Your task to perform on an android device: open a new tab in the chrome app Image 0: 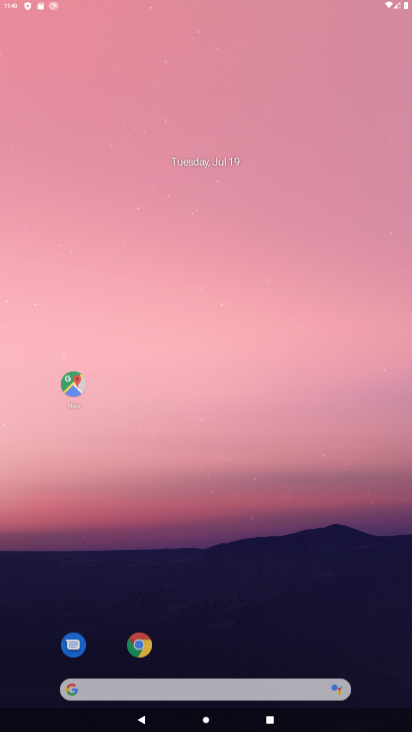
Step 0: press home button
Your task to perform on an android device: open a new tab in the chrome app Image 1: 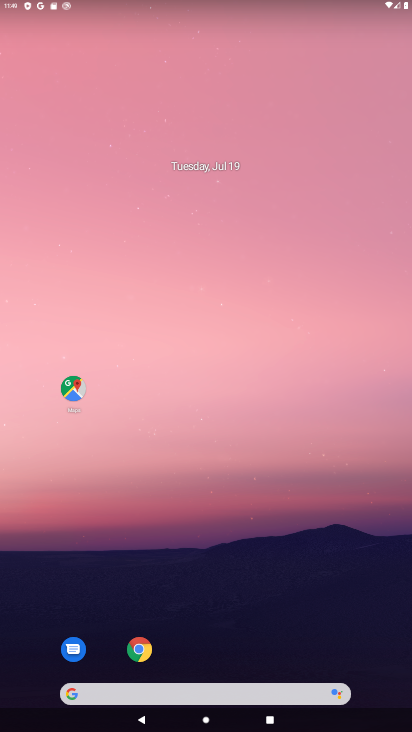
Step 1: click (130, 645)
Your task to perform on an android device: open a new tab in the chrome app Image 2: 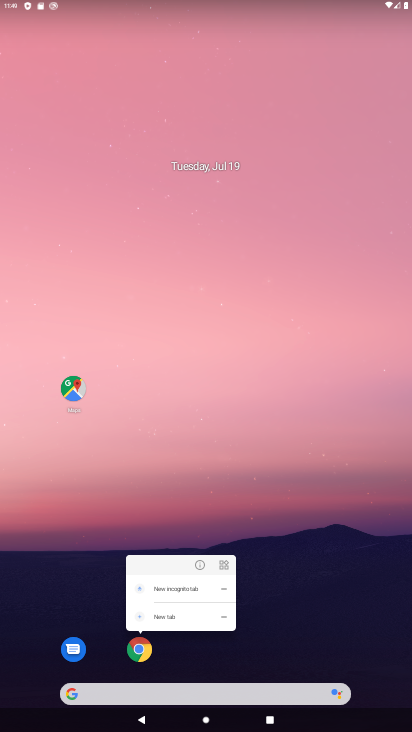
Step 2: click (128, 646)
Your task to perform on an android device: open a new tab in the chrome app Image 3: 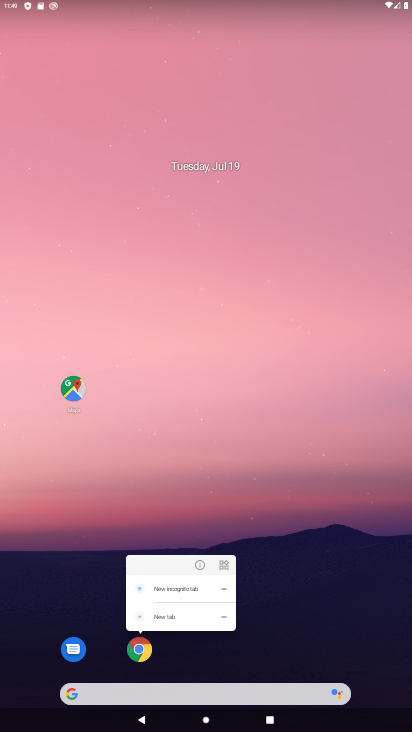
Step 3: click (136, 647)
Your task to perform on an android device: open a new tab in the chrome app Image 4: 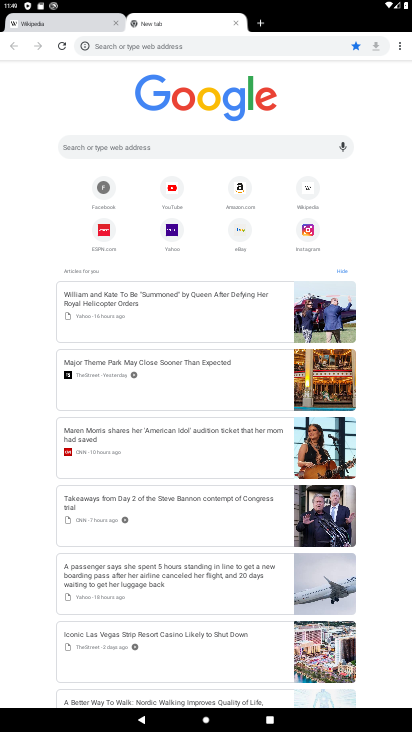
Step 4: click (259, 23)
Your task to perform on an android device: open a new tab in the chrome app Image 5: 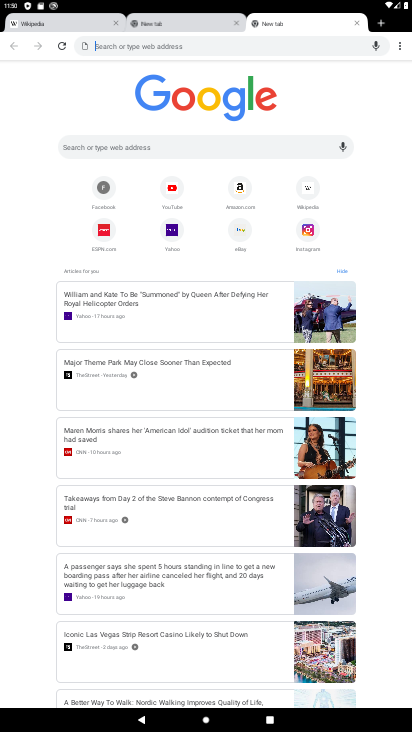
Step 5: click (399, 40)
Your task to perform on an android device: open a new tab in the chrome app Image 6: 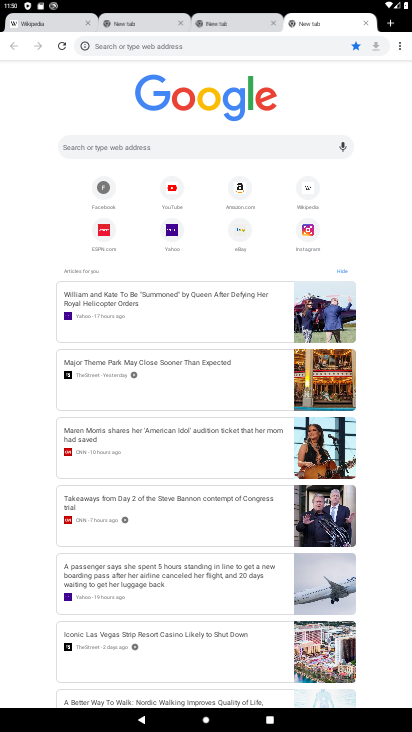
Step 6: click (395, 46)
Your task to perform on an android device: open a new tab in the chrome app Image 7: 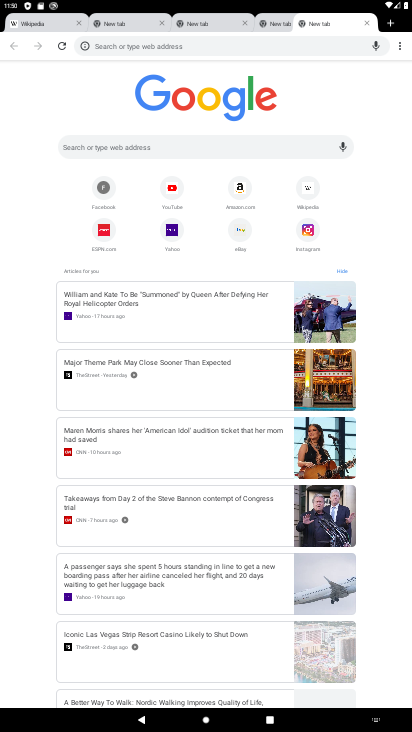
Step 7: task complete